Your task to perform on an android device: turn notification dots on Image 0: 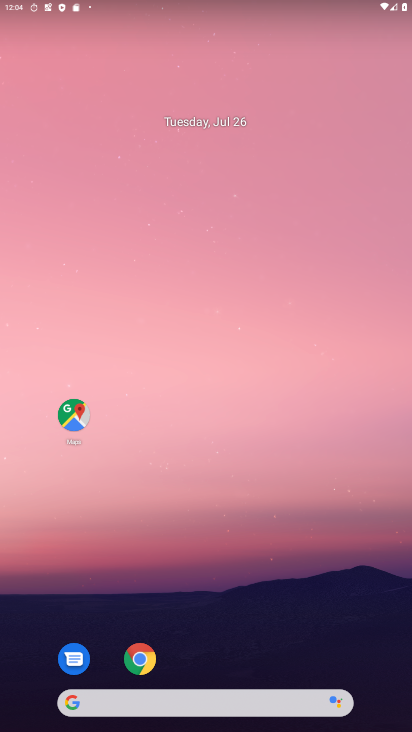
Step 0: drag from (194, 597) to (181, 190)
Your task to perform on an android device: turn notification dots on Image 1: 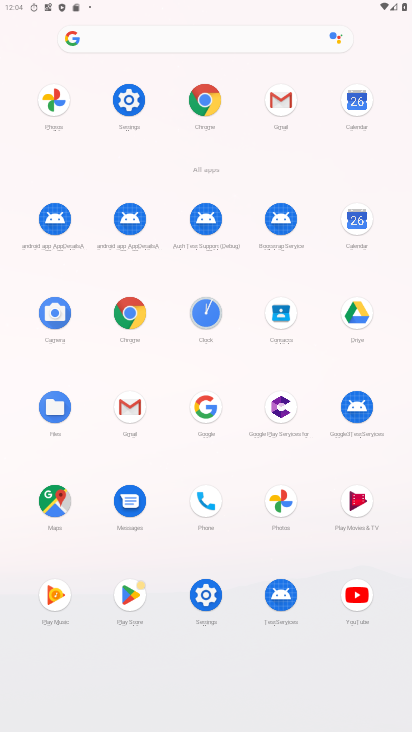
Step 1: click (124, 102)
Your task to perform on an android device: turn notification dots on Image 2: 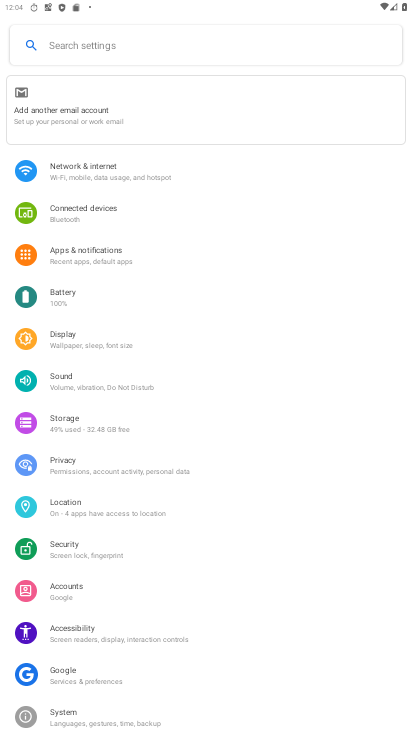
Step 2: click (91, 262)
Your task to perform on an android device: turn notification dots on Image 3: 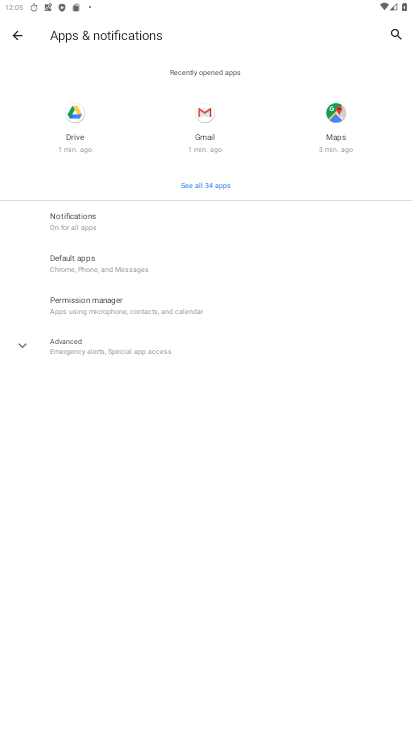
Step 3: click (80, 216)
Your task to perform on an android device: turn notification dots on Image 4: 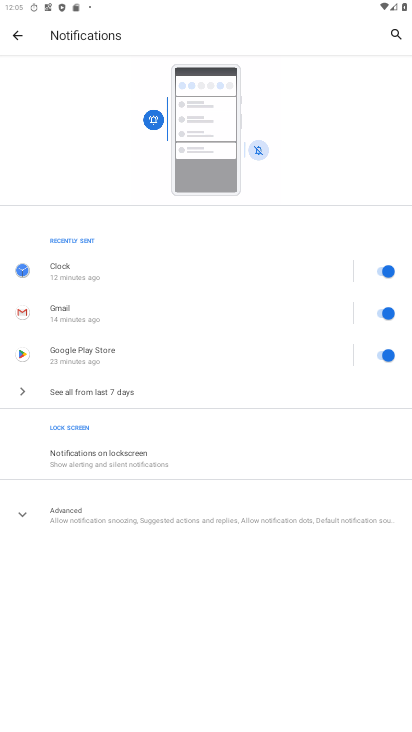
Step 4: click (85, 522)
Your task to perform on an android device: turn notification dots on Image 5: 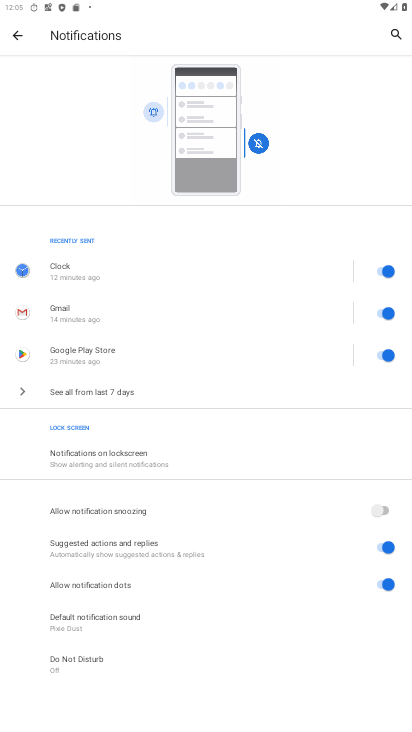
Step 5: task complete